Your task to perform on an android device: manage bookmarks in the chrome app Image 0: 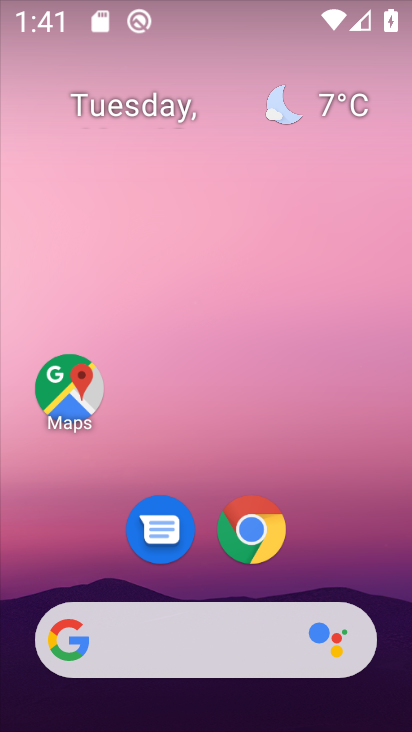
Step 0: click (259, 526)
Your task to perform on an android device: manage bookmarks in the chrome app Image 1: 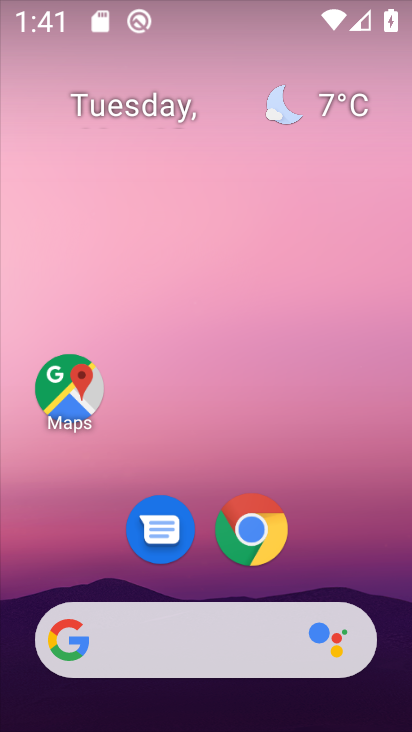
Step 1: click (259, 526)
Your task to perform on an android device: manage bookmarks in the chrome app Image 2: 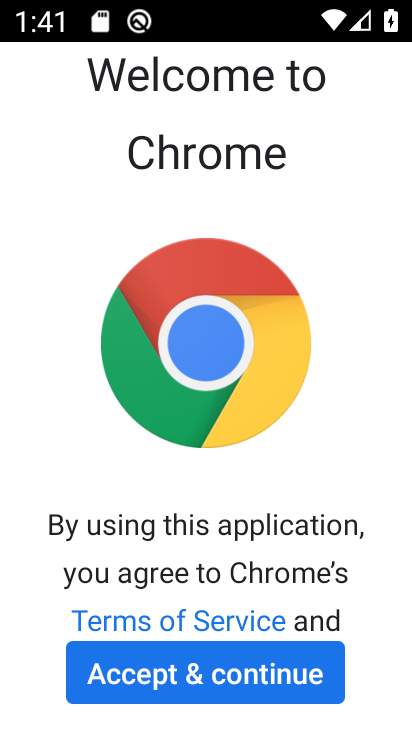
Step 2: click (204, 678)
Your task to perform on an android device: manage bookmarks in the chrome app Image 3: 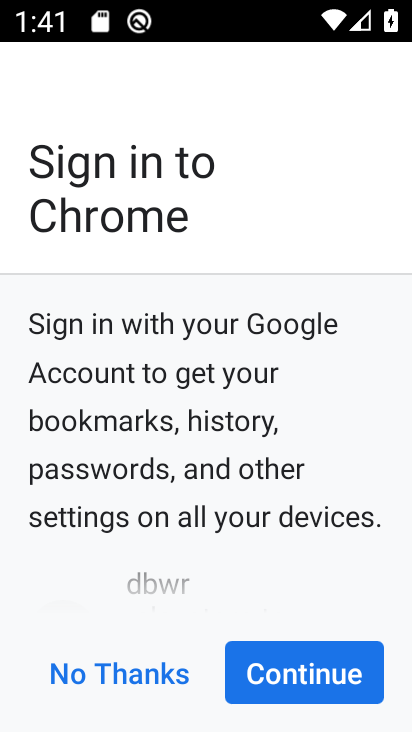
Step 3: click (268, 675)
Your task to perform on an android device: manage bookmarks in the chrome app Image 4: 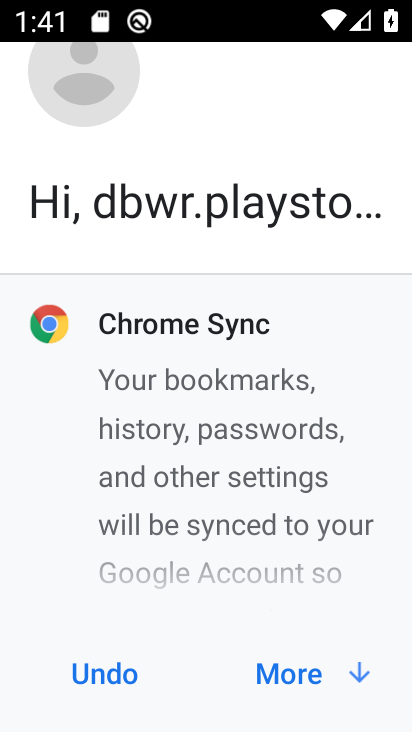
Step 4: click (268, 675)
Your task to perform on an android device: manage bookmarks in the chrome app Image 5: 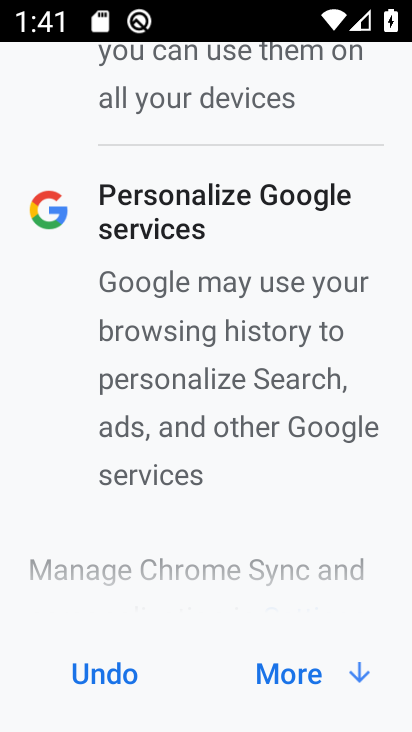
Step 5: click (268, 675)
Your task to perform on an android device: manage bookmarks in the chrome app Image 6: 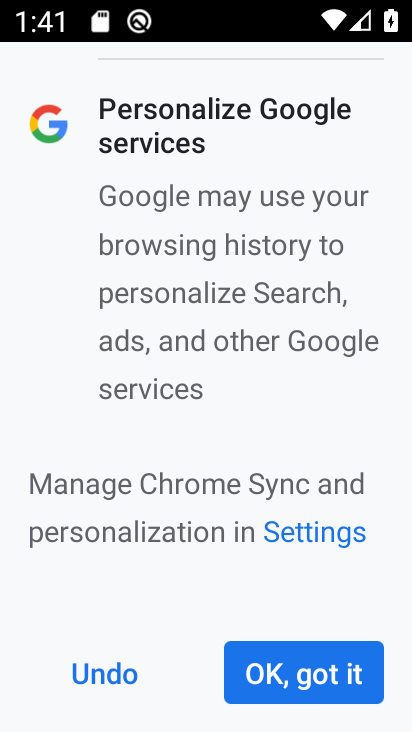
Step 6: click (268, 675)
Your task to perform on an android device: manage bookmarks in the chrome app Image 7: 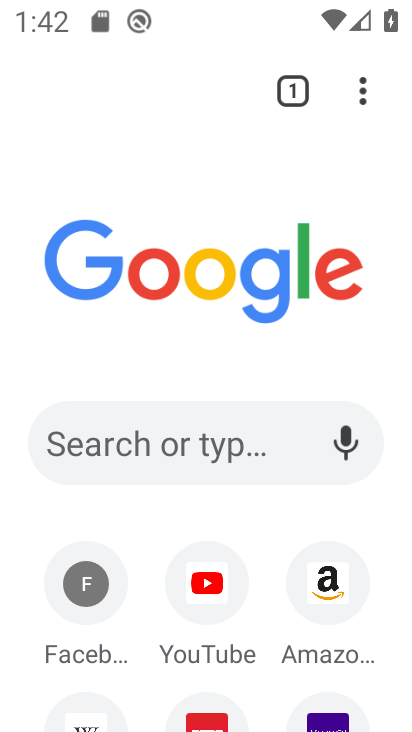
Step 7: click (362, 91)
Your task to perform on an android device: manage bookmarks in the chrome app Image 8: 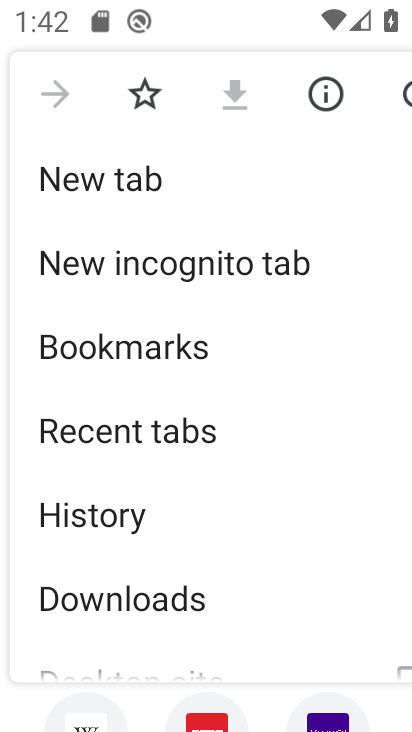
Step 8: click (82, 345)
Your task to perform on an android device: manage bookmarks in the chrome app Image 9: 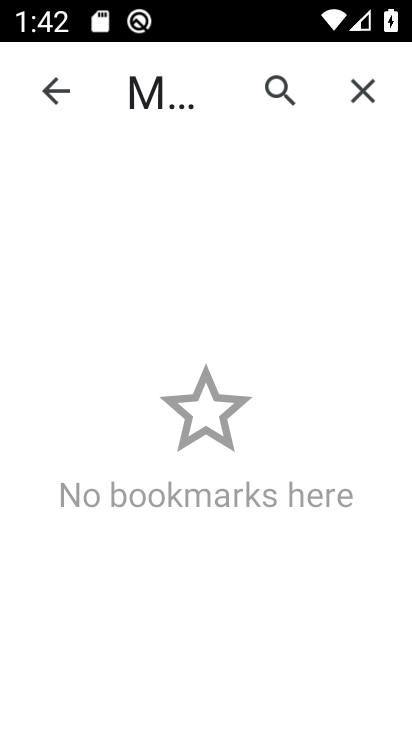
Step 9: task complete